Your task to perform on an android device: Open maps Image 0: 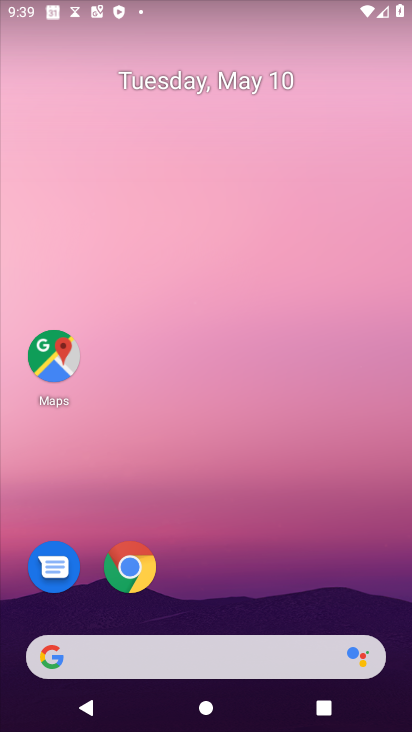
Step 0: click (48, 345)
Your task to perform on an android device: Open maps Image 1: 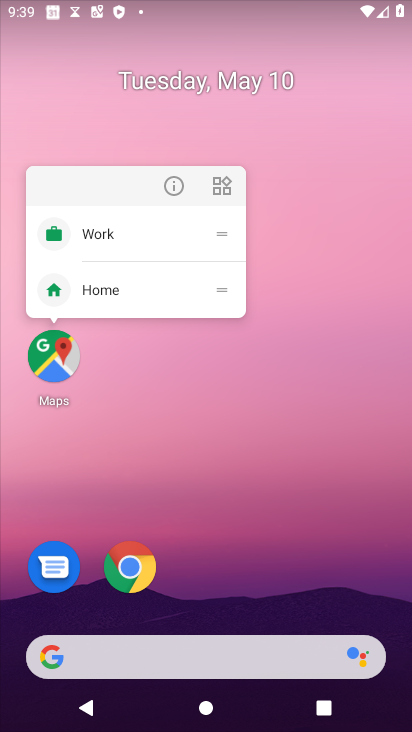
Step 1: click (178, 179)
Your task to perform on an android device: Open maps Image 2: 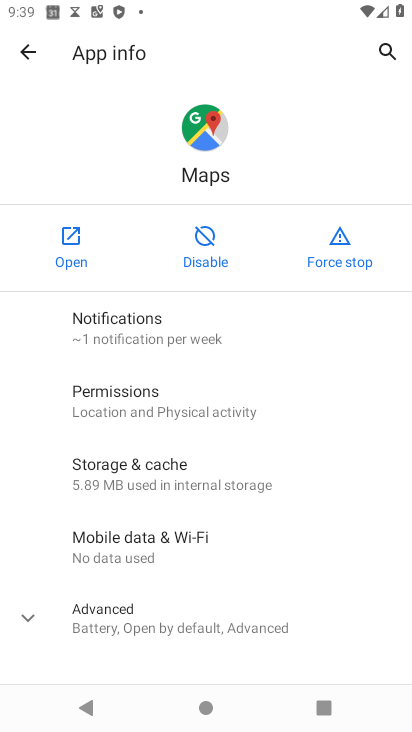
Step 2: click (67, 239)
Your task to perform on an android device: Open maps Image 3: 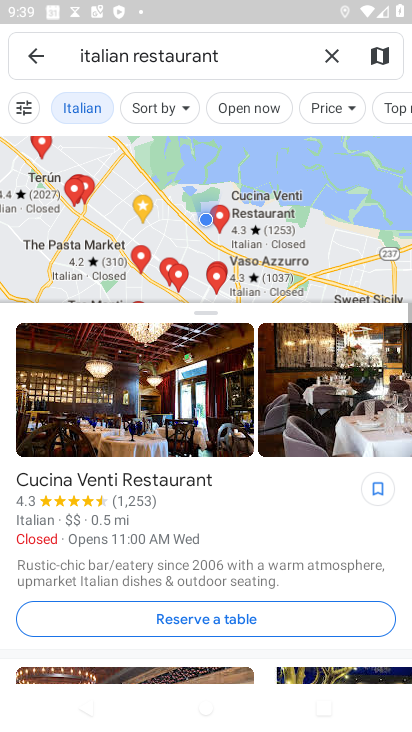
Step 3: click (321, 52)
Your task to perform on an android device: Open maps Image 4: 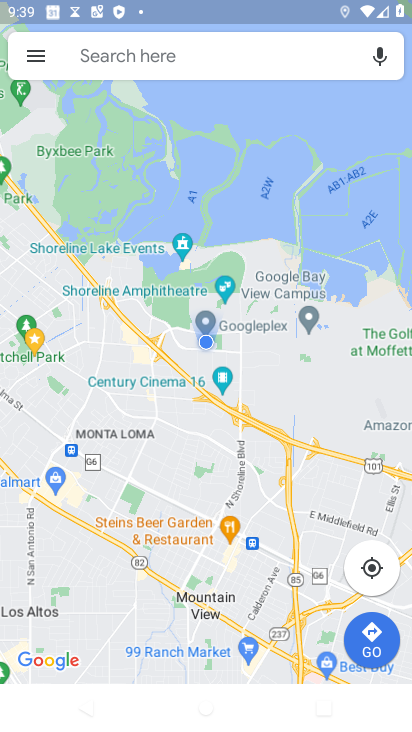
Step 4: task complete